Your task to perform on an android device: Open the stopwatch Image 0: 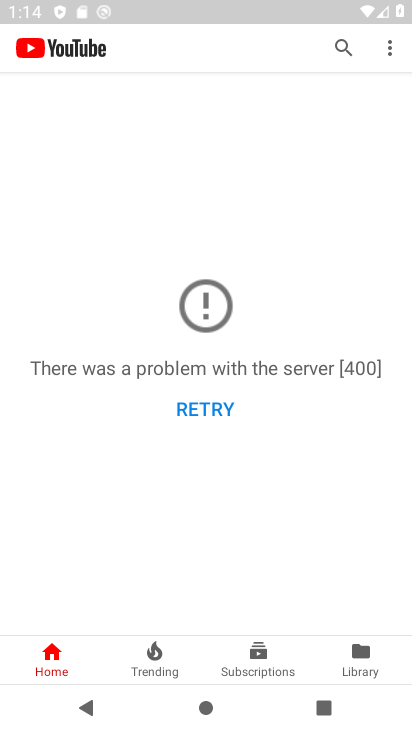
Step 0: click (408, 549)
Your task to perform on an android device: Open the stopwatch Image 1: 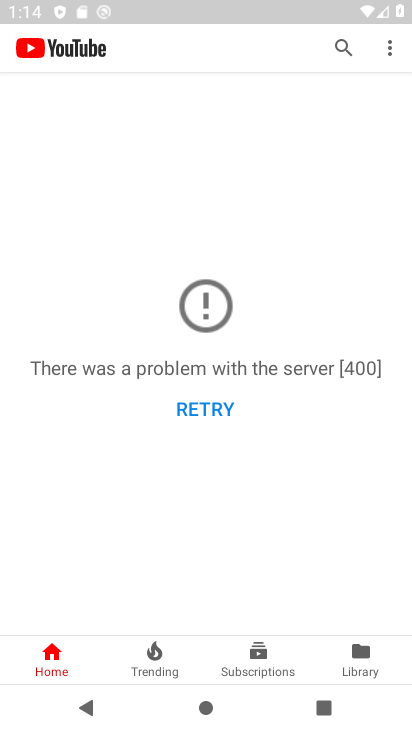
Step 1: press home button
Your task to perform on an android device: Open the stopwatch Image 2: 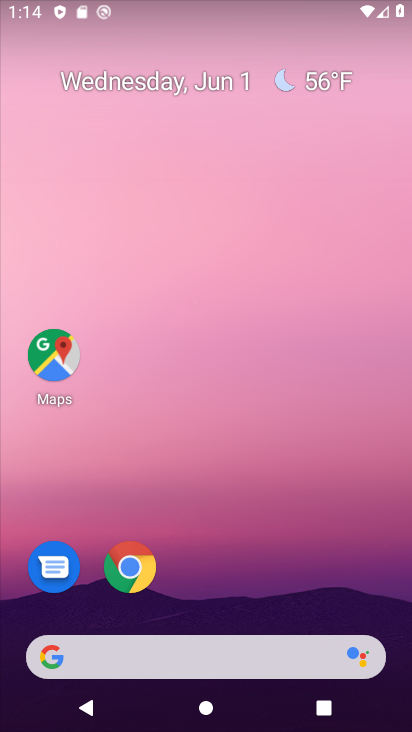
Step 2: drag from (170, 639) to (159, 40)
Your task to perform on an android device: Open the stopwatch Image 3: 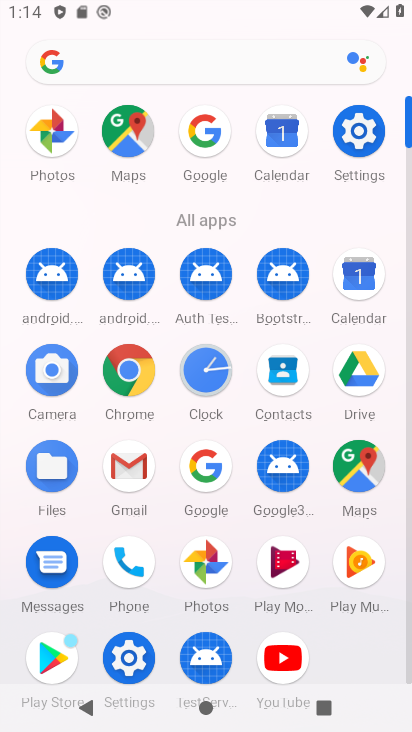
Step 3: click (196, 367)
Your task to perform on an android device: Open the stopwatch Image 4: 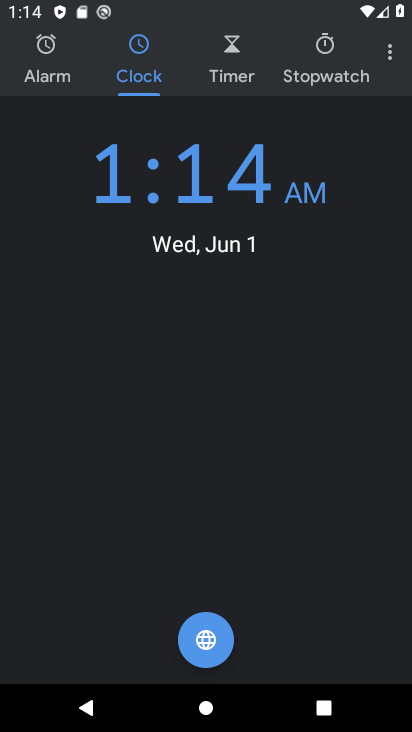
Step 4: click (303, 78)
Your task to perform on an android device: Open the stopwatch Image 5: 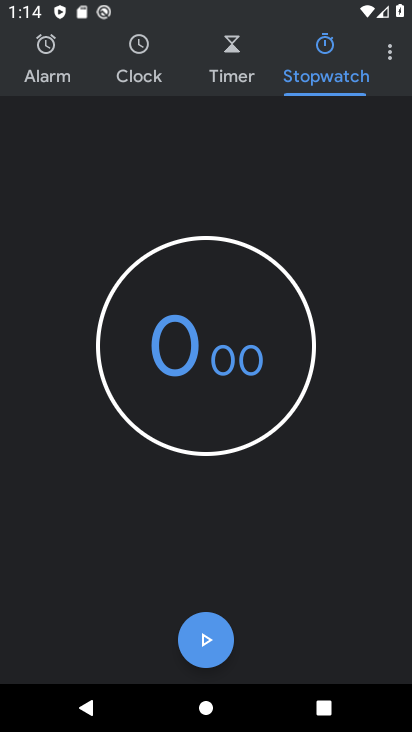
Step 5: task complete